Your task to perform on an android device: Open the calendar and show me this week's events Image 0: 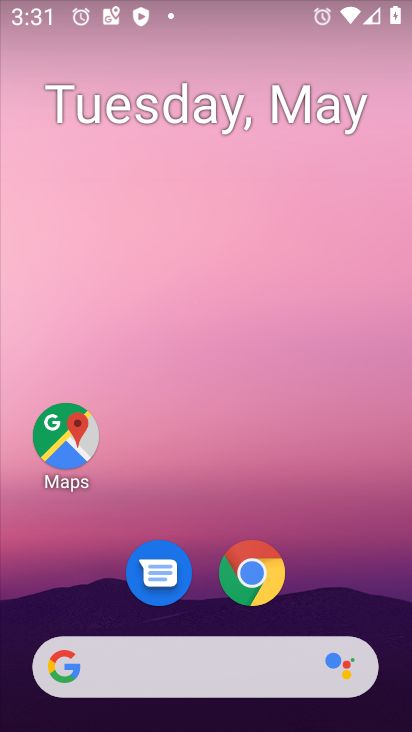
Step 0: drag from (305, 585) to (268, 56)
Your task to perform on an android device: Open the calendar and show me this week's events Image 1: 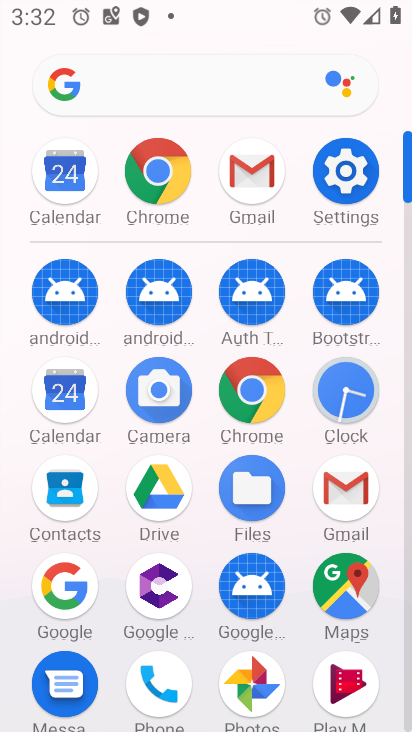
Step 1: click (63, 391)
Your task to perform on an android device: Open the calendar and show me this week's events Image 2: 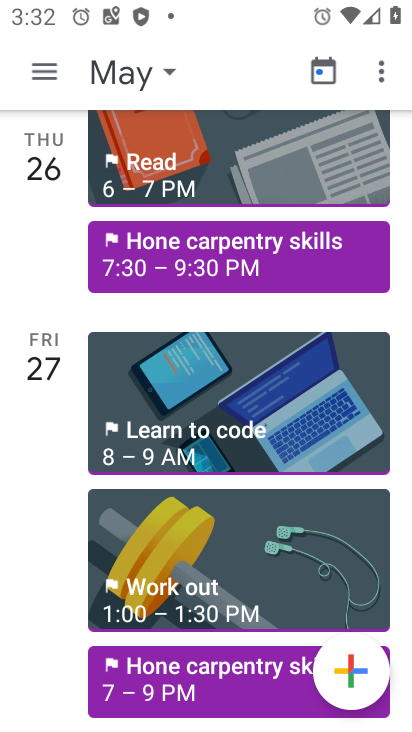
Step 2: click (140, 73)
Your task to perform on an android device: Open the calendar and show me this week's events Image 3: 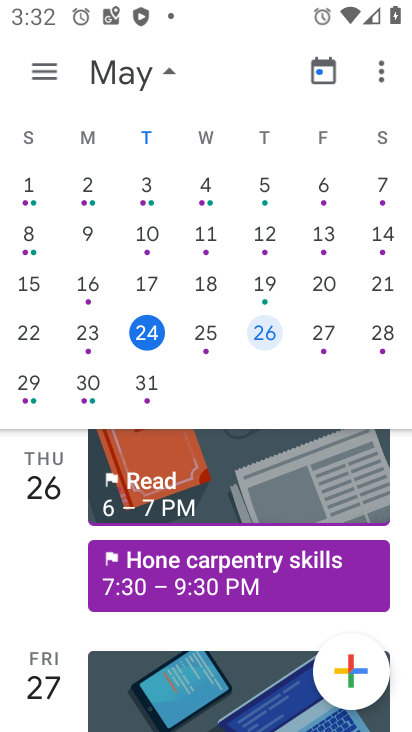
Step 3: click (42, 78)
Your task to perform on an android device: Open the calendar and show me this week's events Image 4: 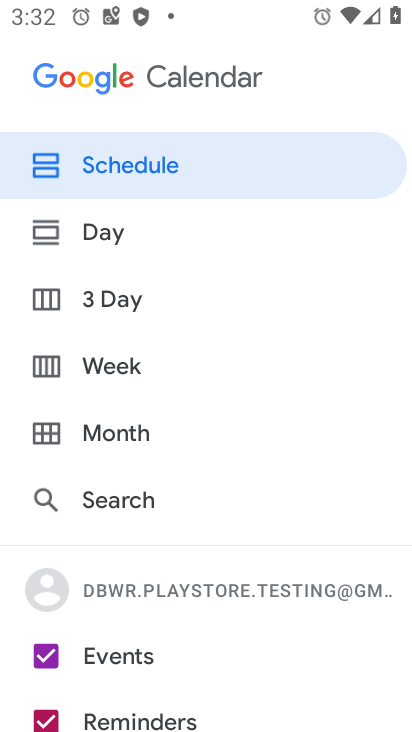
Step 4: click (133, 376)
Your task to perform on an android device: Open the calendar and show me this week's events Image 5: 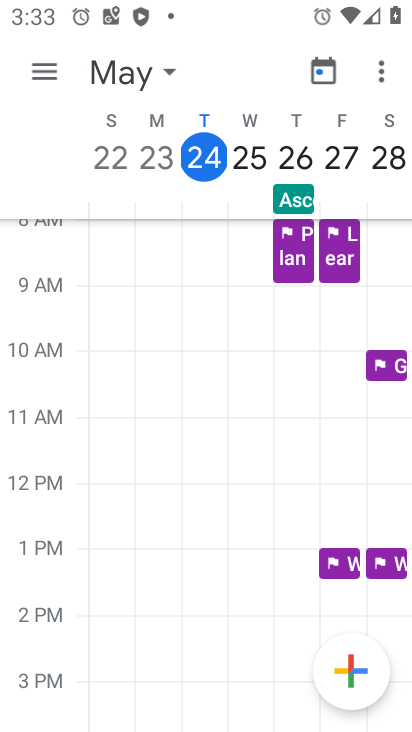
Step 5: task complete